Your task to perform on an android device: Open calendar and show me the third week of next month Image 0: 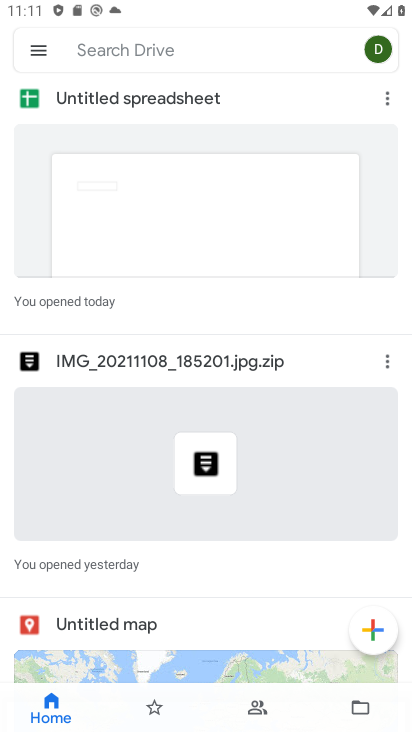
Step 0: press home button
Your task to perform on an android device: Open calendar and show me the third week of next month Image 1: 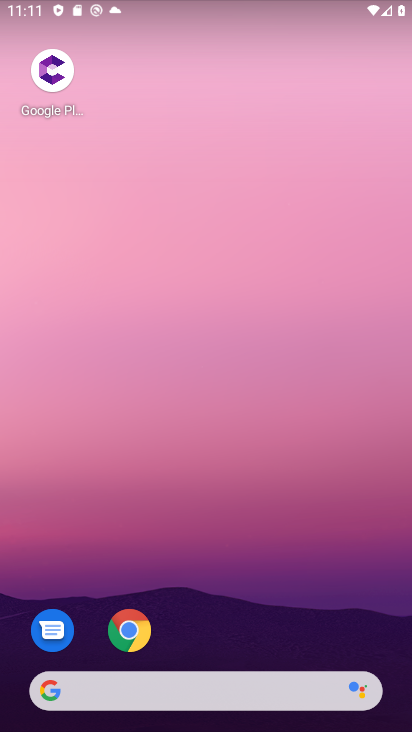
Step 1: drag from (220, 551) to (251, 189)
Your task to perform on an android device: Open calendar and show me the third week of next month Image 2: 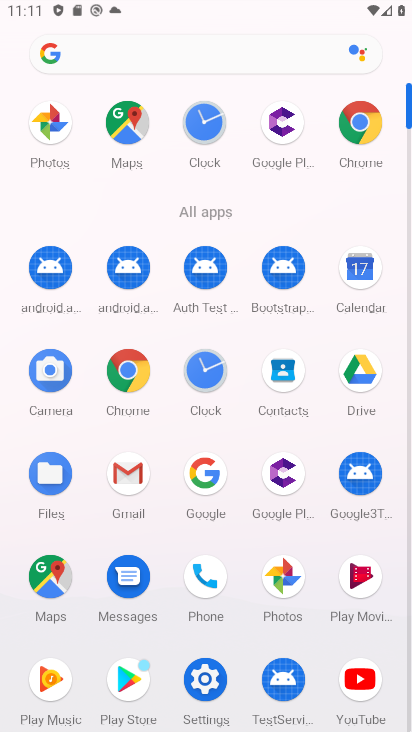
Step 2: click (359, 264)
Your task to perform on an android device: Open calendar and show me the third week of next month Image 3: 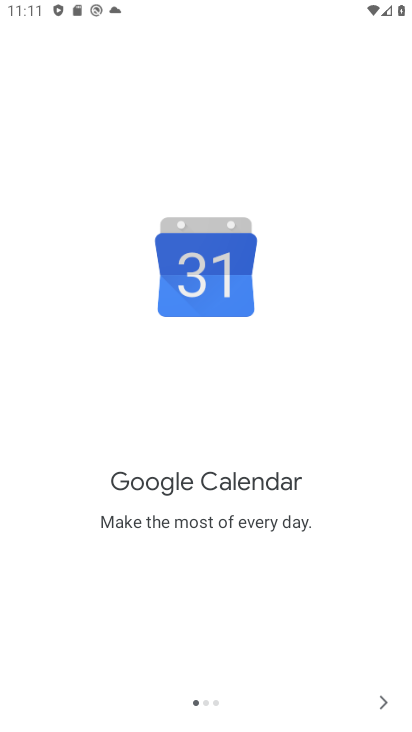
Step 3: click (391, 695)
Your task to perform on an android device: Open calendar and show me the third week of next month Image 4: 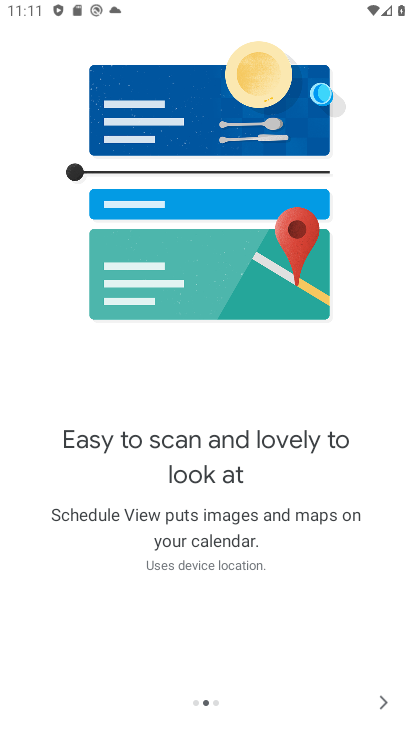
Step 4: click (391, 695)
Your task to perform on an android device: Open calendar and show me the third week of next month Image 5: 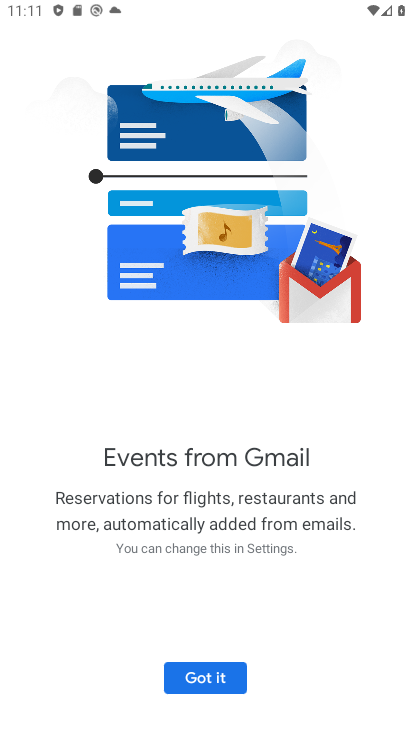
Step 5: click (232, 690)
Your task to perform on an android device: Open calendar and show me the third week of next month Image 6: 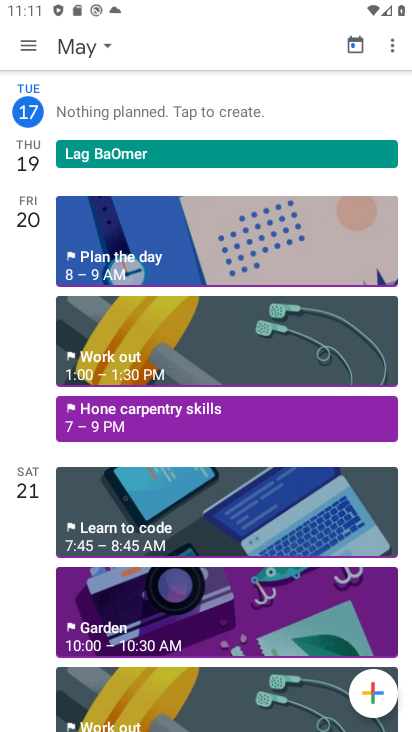
Step 6: click (88, 58)
Your task to perform on an android device: Open calendar and show me the third week of next month Image 7: 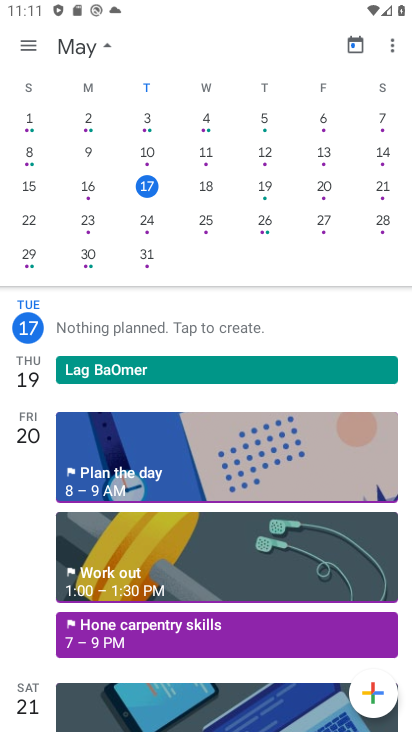
Step 7: drag from (375, 258) to (20, 204)
Your task to perform on an android device: Open calendar and show me the third week of next month Image 8: 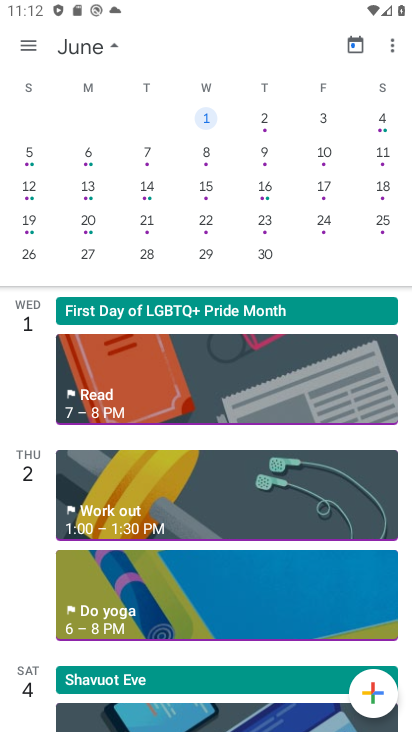
Step 8: click (40, 225)
Your task to perform on an android device: Open calendar and show me the third week of next month Image 9: 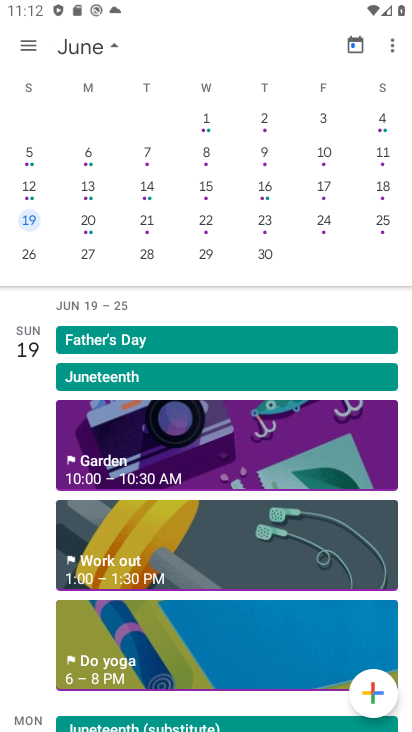
Step 9: click (31, 41)
Your task to perform on an android device: Open calendar and show me the third week of next month Image 10: 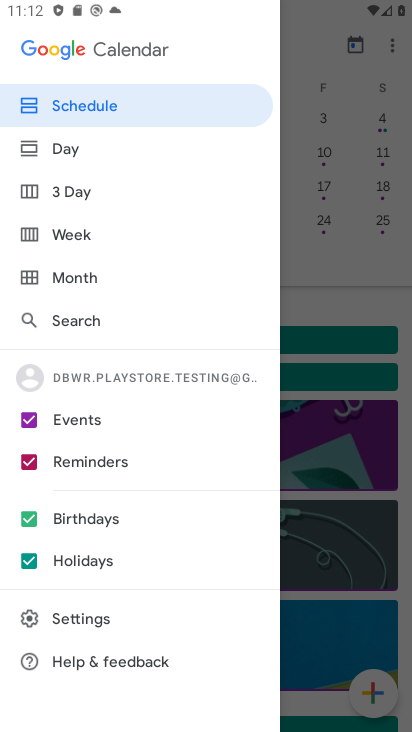
Step 10: click (94, 238)
Your task to perform on an android device: Open calendar and show me the third week of next month Image 11: 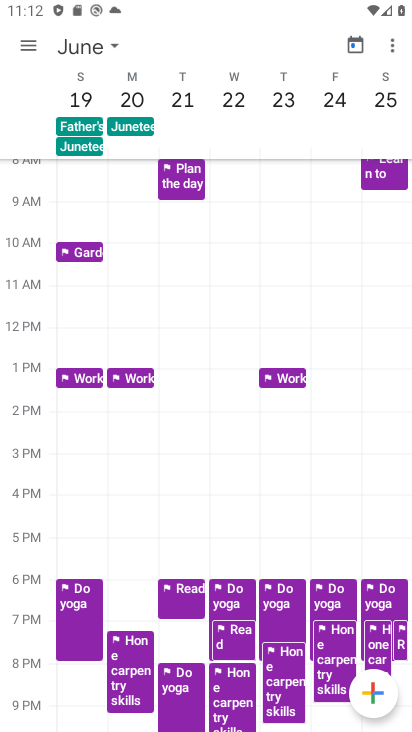
Step 11: task complete